Your task to perform on an android device: Search for vegetarian restaurants on Maps Image 0: 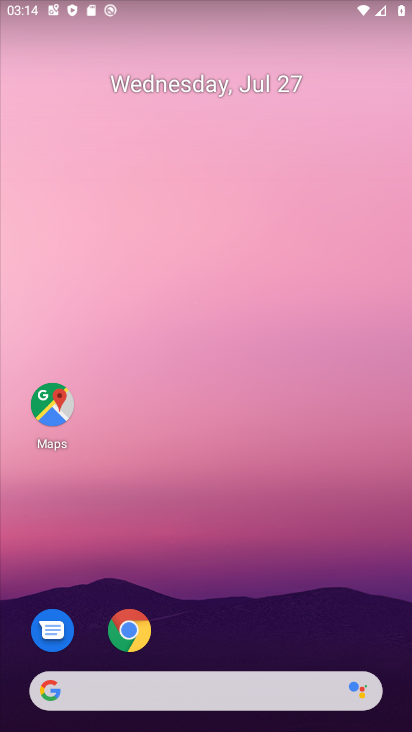
Step 0: drag from (321, 498) to (282, 203)
Your task to perform on an android device: Search for vegetarian restaurants on Maps Image 1: 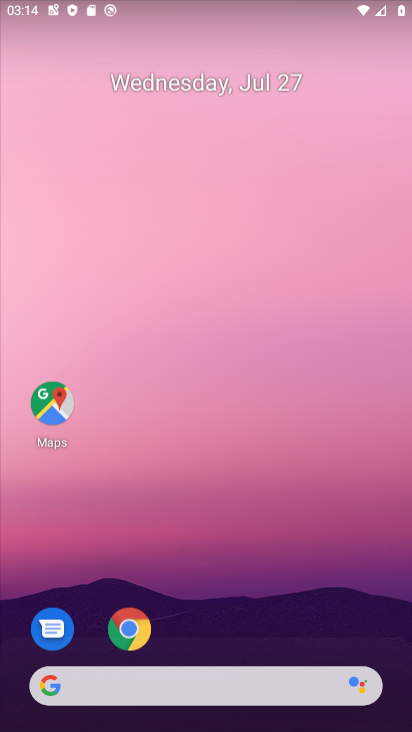
Step 1: click (221, 329)
Your task to perform on an android device: Search for vegetarian restaurants on Maps Image 2: 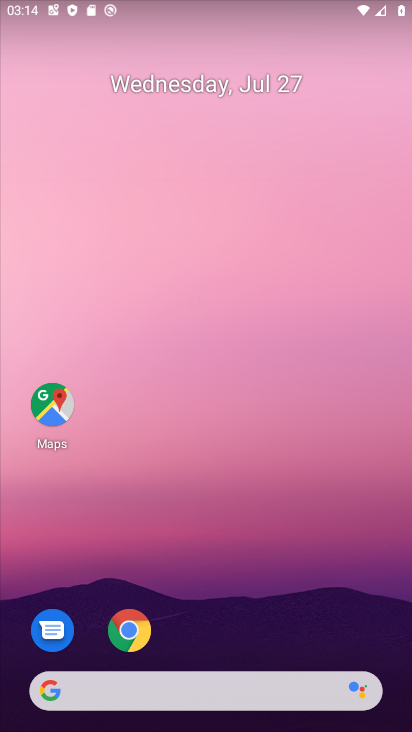
Step 2: drag from (150, 568) to (151, 328)
Your task to perform on an android device: Search for vegetarian restaurants on Maps Image 3: 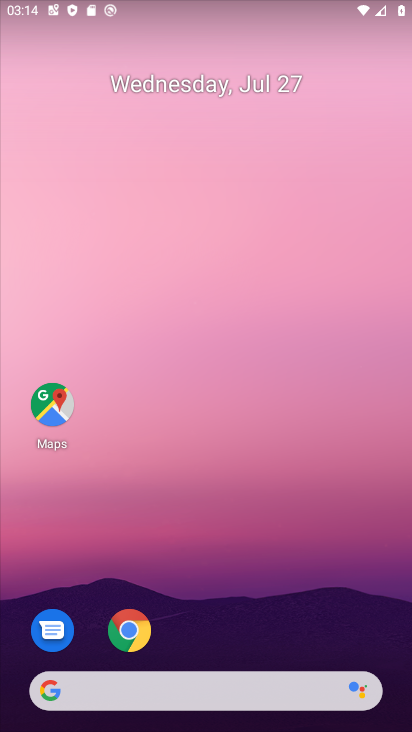
Step 3: drag from (215, 586) to (166, 258)
Your task to perform on an android device: Search for vegetarian restaurants on Maps Image 4: 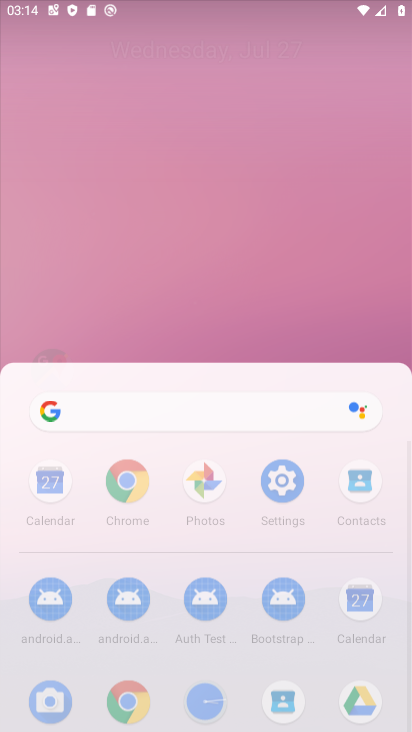
Step 4: drag from (256, 522) to (230, 204)
Your task to perform on an android device: Search for vegetarian restaurants on Maps Image 5: 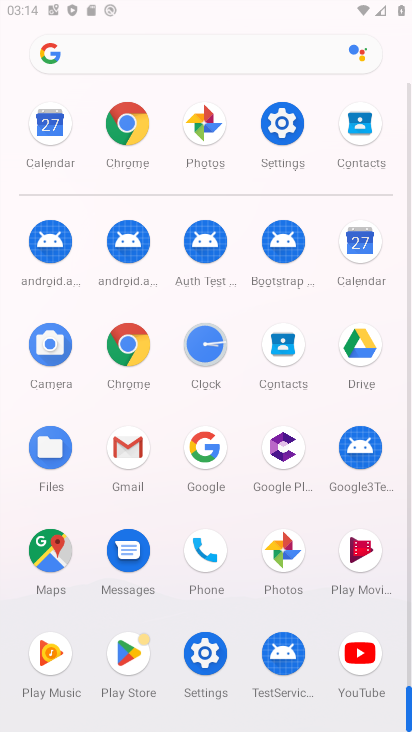
Step 5: drag from (222, 486) to (210, 152)
Your task to perform on an android device: Search for vegetarian restaurants on Maps Image 6: 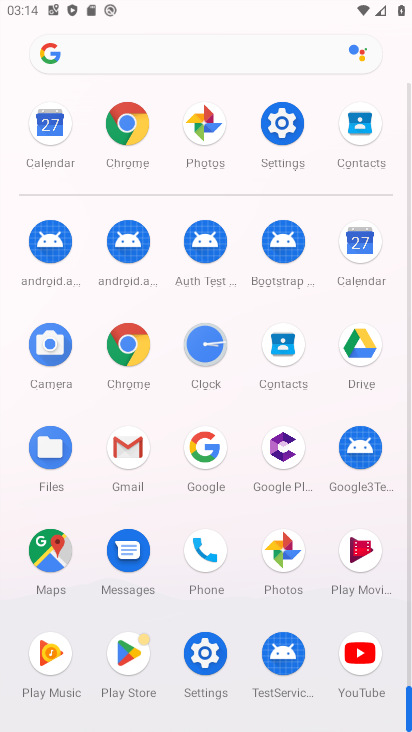
Step 6: click (56, 563)
Your task to perform on an android device: Search for vegetarian restaurants on Maps Image 7: 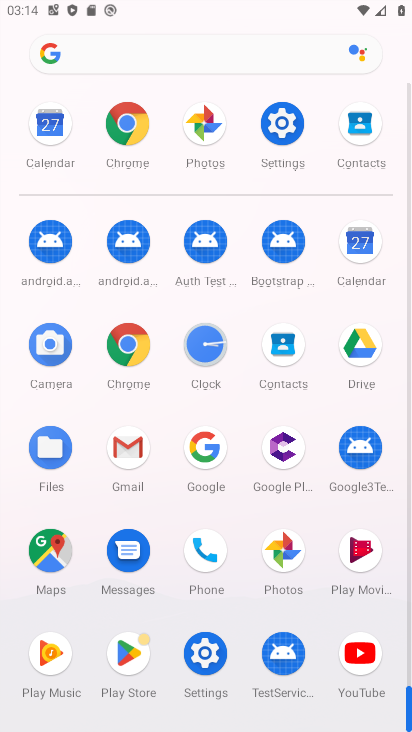
Step 7: click (56, 563)
Your task to perform on an android device: Search for vegetarian restaurants on Maps Image 8: 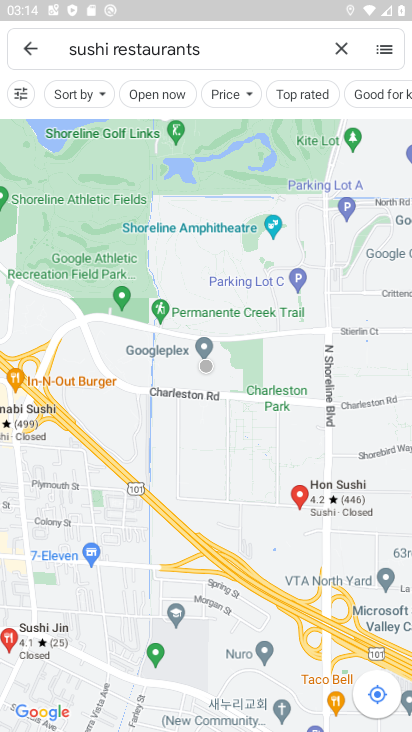
Step 8: click (208, 37)
Your task to perform on an android device: Search for vegetarian restaurants on Maps Image 9: 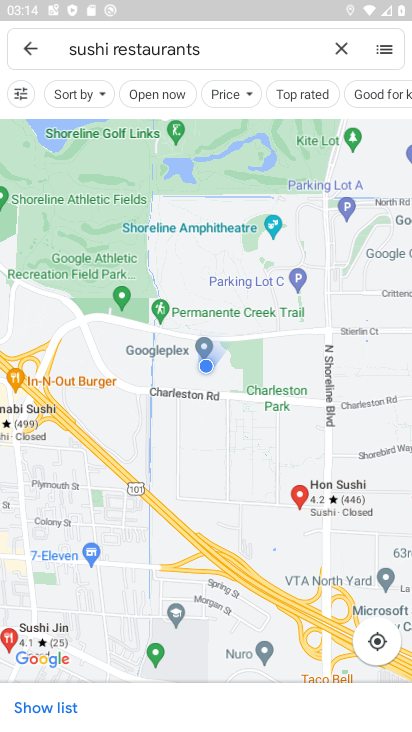
Step 9: click (212, 44)
Your task to perform on an android device: Search for vegetarian restaurants on Maps Image 10: 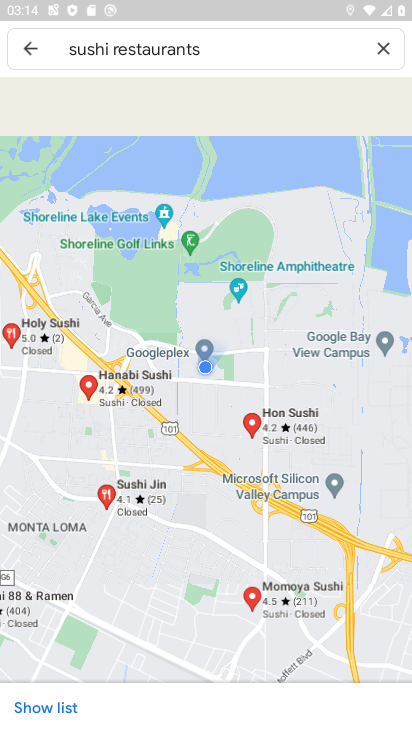
Step 10: click (224, 57)
Your task to perform on an android device: Search for vegetarian restaurants on Maps Image 11: 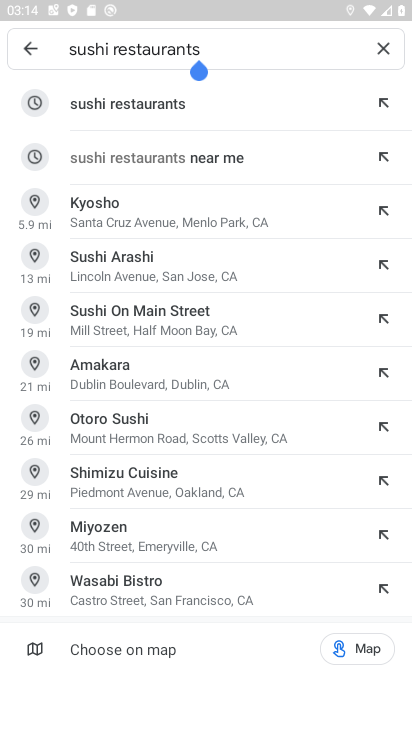
Step 11: click (378, 40)
Your task to perform on an android device: Search for vegetarian restaurants on Maps Image 12: 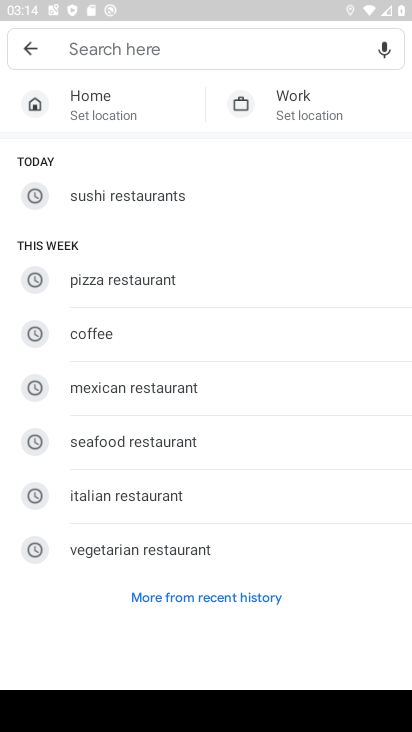
Step 12: click (103, 546)
Your task to perform on an android device: Search for vegetarian restaurants on Maps Image 13: 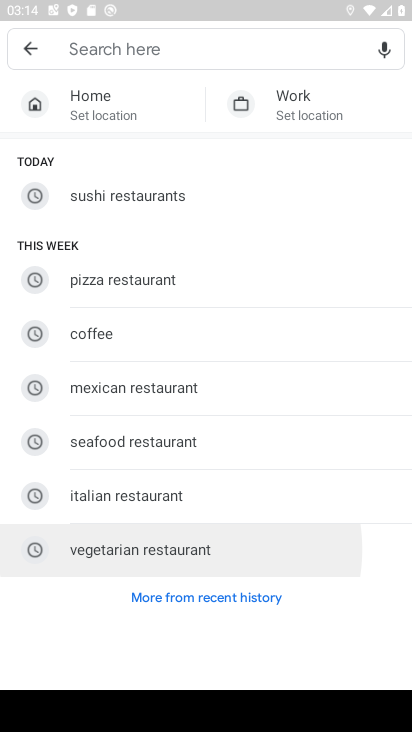
Step 13: click (103, 545)
Your task to perform on an android device: Search for vegetarian restaurants on Maps Image 14: 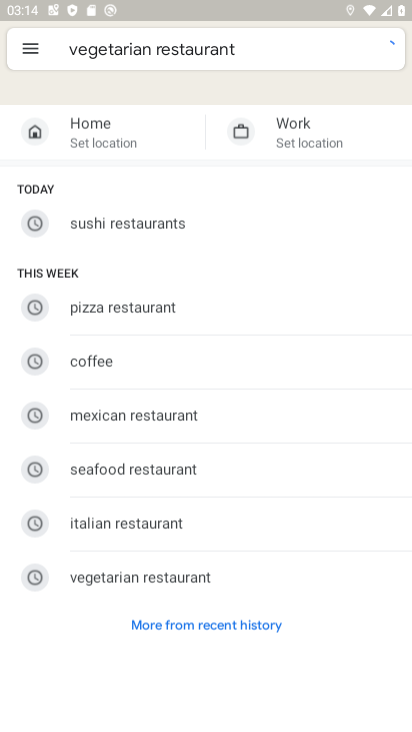
Step 14: click (103, 545)
Your task to perform on an android device: Search for vegetarian restaurants on Maps Image 15: 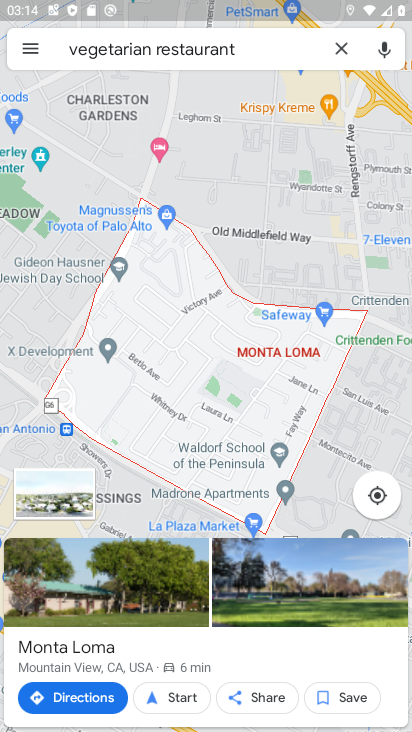
Step 15: task complete